Your task to perform on an android device: Open location settings Image 0: 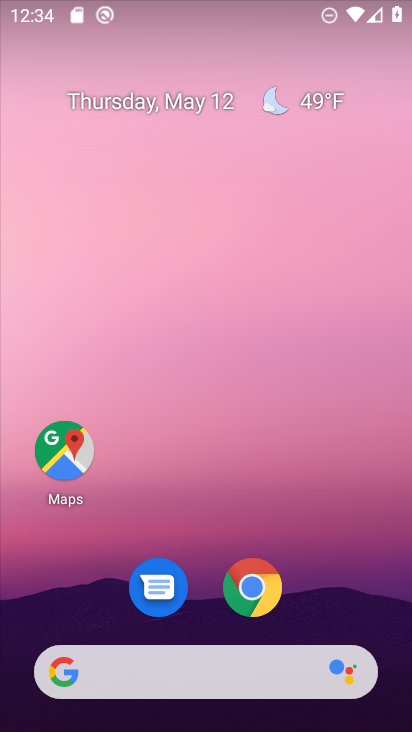
Step 0: drag from (298, 555) to (330, 303)
Your task to perform on an android device: Open location settings Image 1: 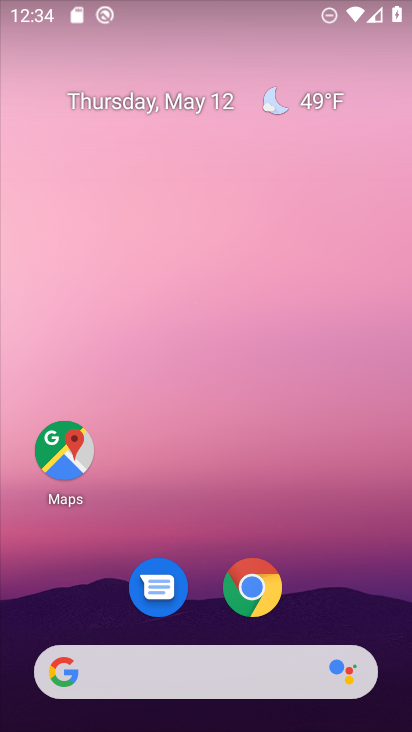
Step 1: drag from (317, 632) to (366, 363)
Your task to perform on an android device: Open location settings Image 2: 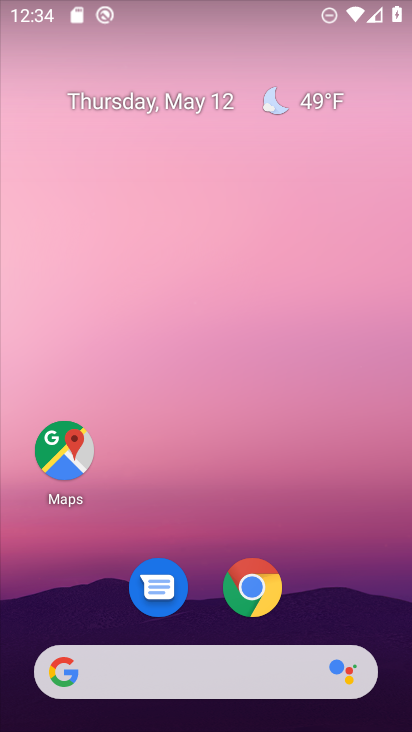
Step 2: drag from (204, 646) to (290, 272)
Your task to perform on an android device: Open location settings Image 3: 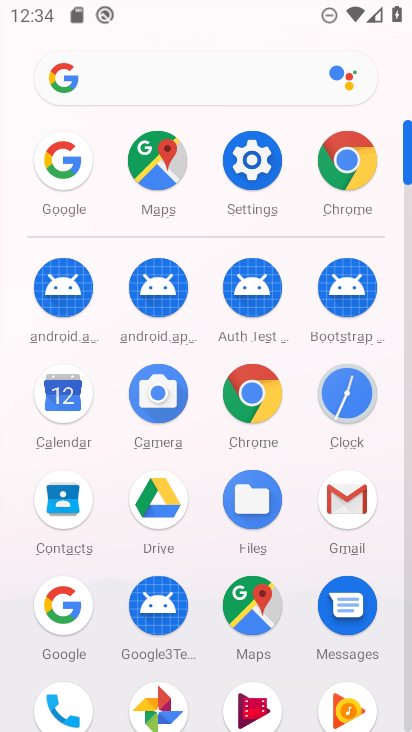
Step 3: click (244, 151)
Your task to perform on an android device: Open location settings Image 4: 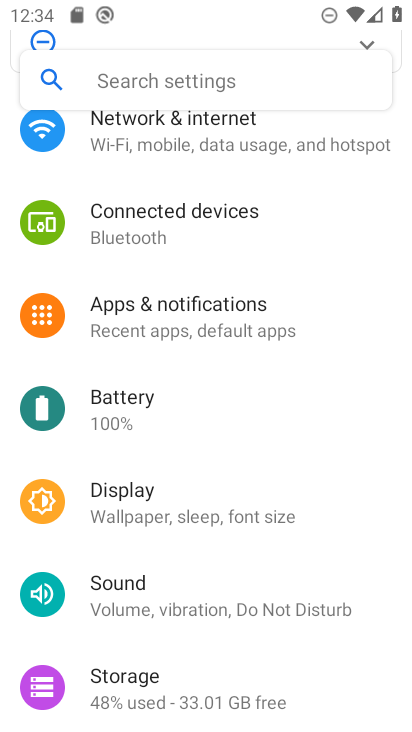
Step 4: drag from (160, 511) to (226, 268)
Your task to perform on an android device: Open location settings Image 5: 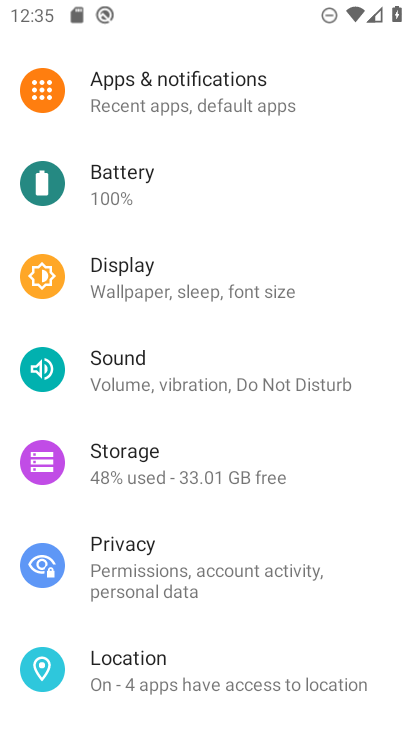
Step 5: click (119, 667)
Your task to perform on an android device: Open location settings Image 6: 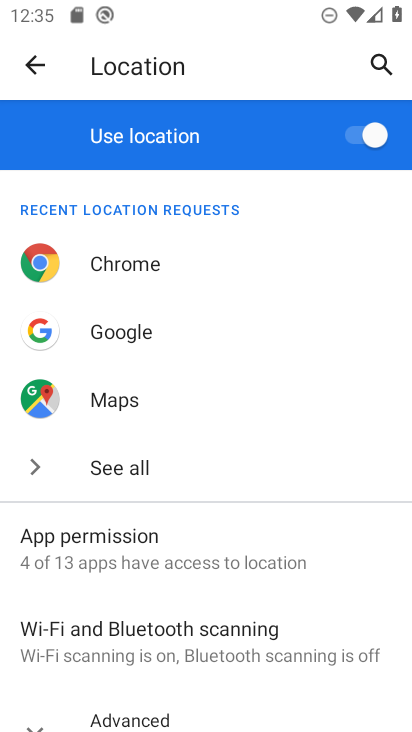
Step 6: task complete